Your task to perform on an android device: turn on wifi Image 0: 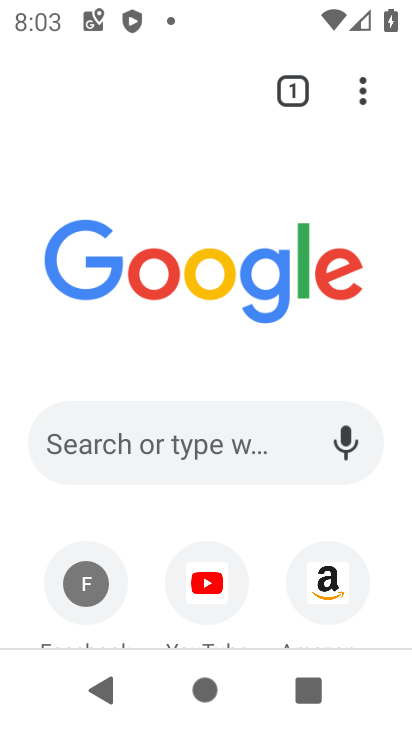
Step 0: press home button
Your task to perform on an android device: turn on wifi Image 1: 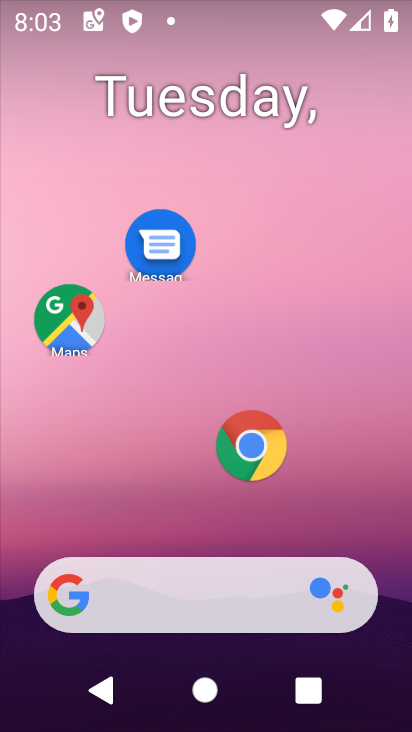
Step 1: drag from (199, 549) to (203, 262)
Your task to perform on an android device: turn on wifi Image 2: 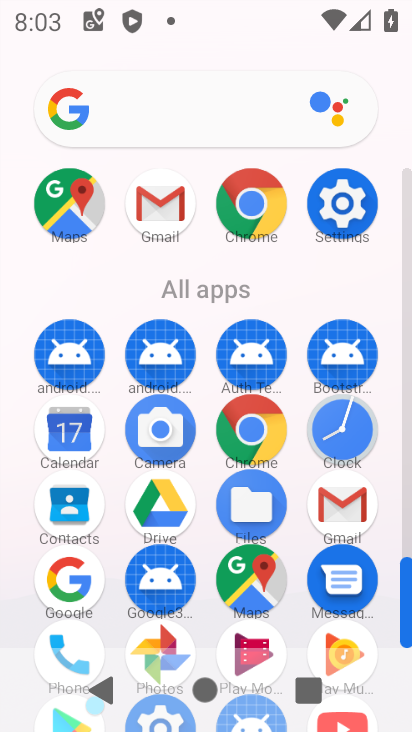
Step 2: click (339, 218)
Your task to perform on an android device: turn on wifi Image 3: 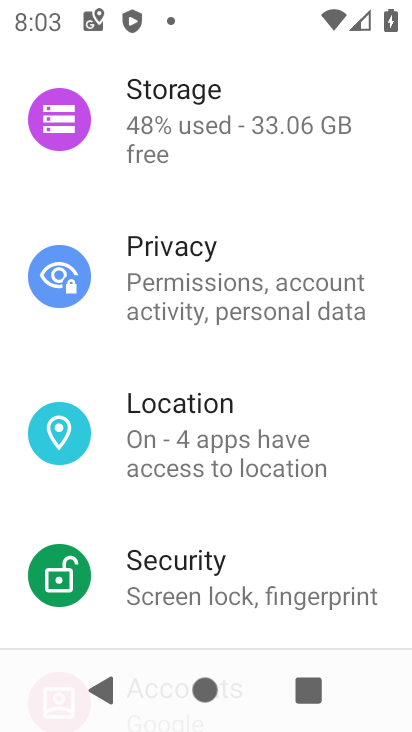
Step 3: drag from (261, 229) to (292, 614)
Your task to perform on an android device: turn on wifi Image 4: 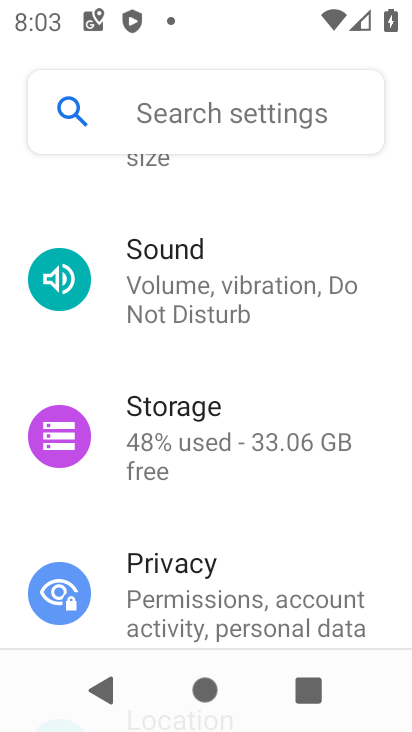
Step 4: drag from (279, 197) to (292, 569)
Your task to perform on an android device: turn on wifi Image 5: 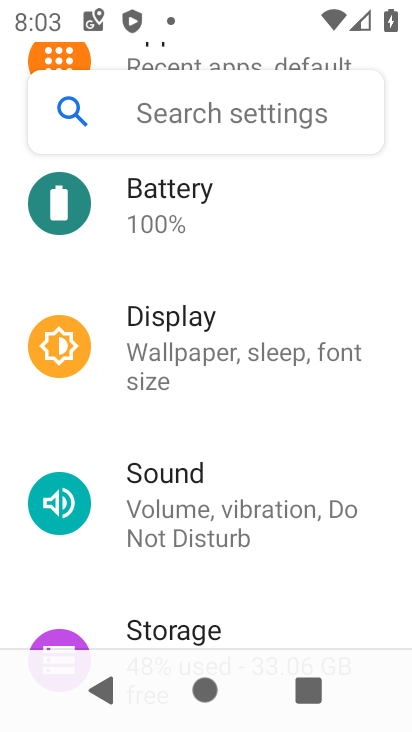
Step 5: drag from (296, 221) to (322, 450)
Your task to perform on an android device: turn on wifi Image 6: 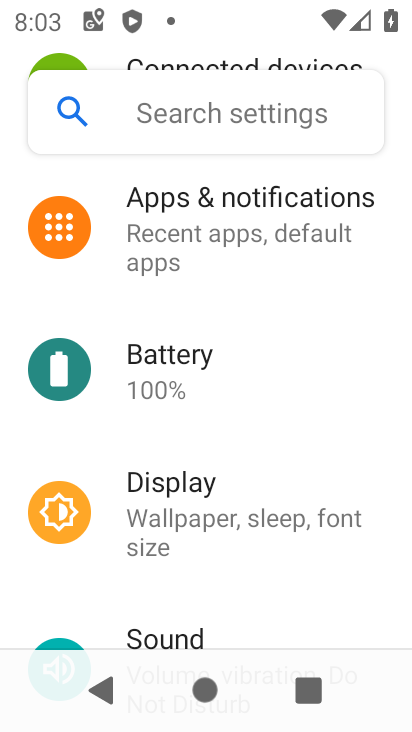
Step 6: drag from (330, 270) to (361, 439)
Your task to perform on an android device: turn on wifi Image 7: 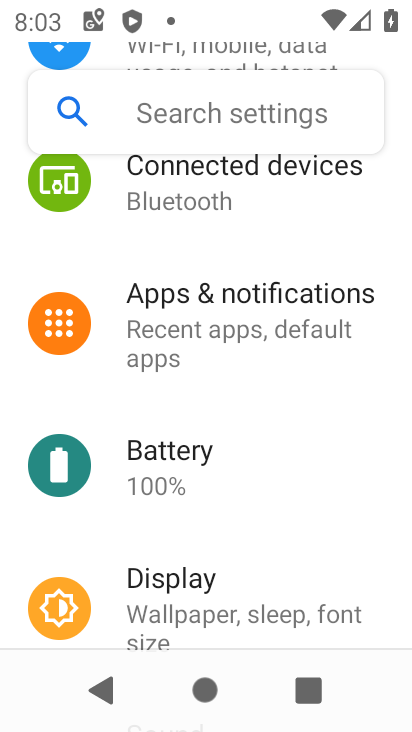
Step 7: drag from (264, 544) to (271, 586)
Your task to perform on an android device: turn on wifi Image 8: 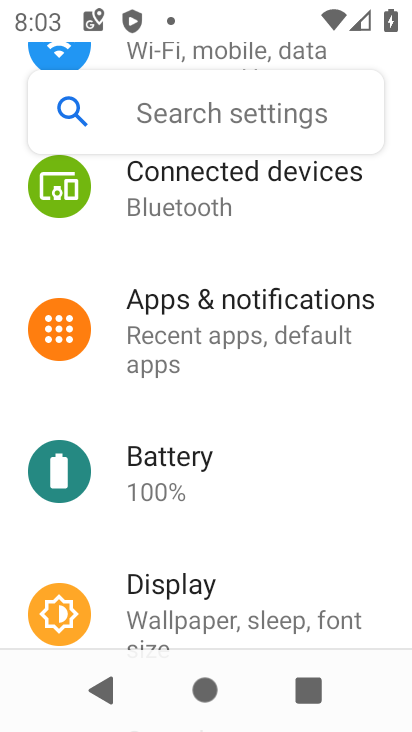
Step 8: drag from (259, 177) to (298, 590)
Your task to perform on an android device: turn on wifi Image 9: 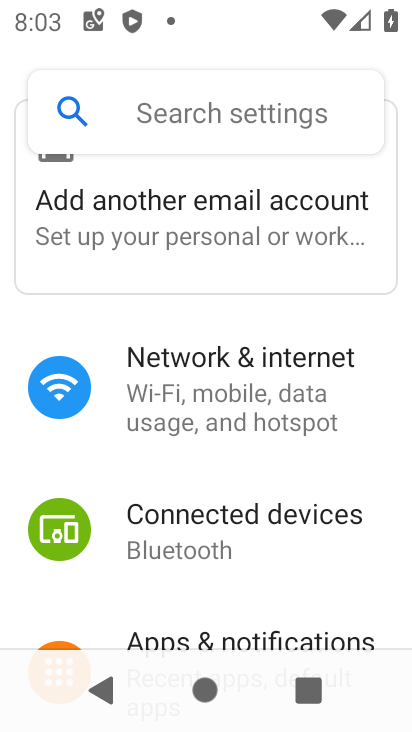
Step 9: click (256, 394)
Your task to perform on an android device: turn on wifi Image 10: 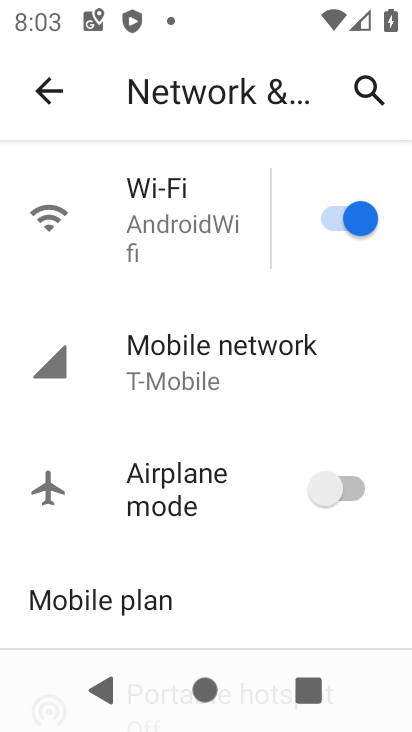
Step 10: click (195, 316)
Your task to perform on an android device: turn on wifi Image 11: 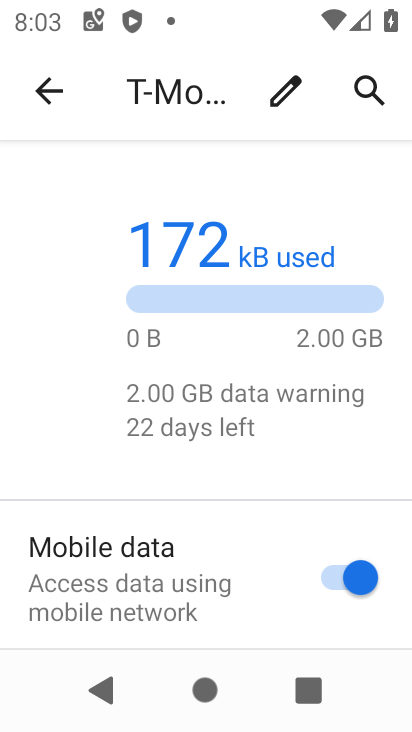
Step 11: click (44, 85)
Your task to perform on an android device: turn on wifi Image 12: 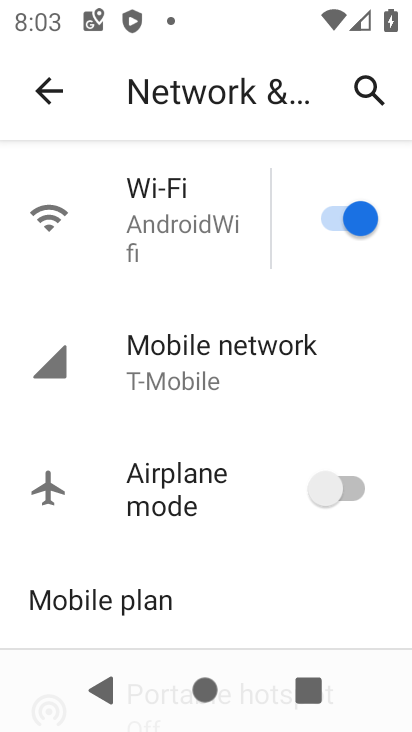
Step 12: task complete